Your task to perform on an android device: Show me the alarms in the clock app Image 0: 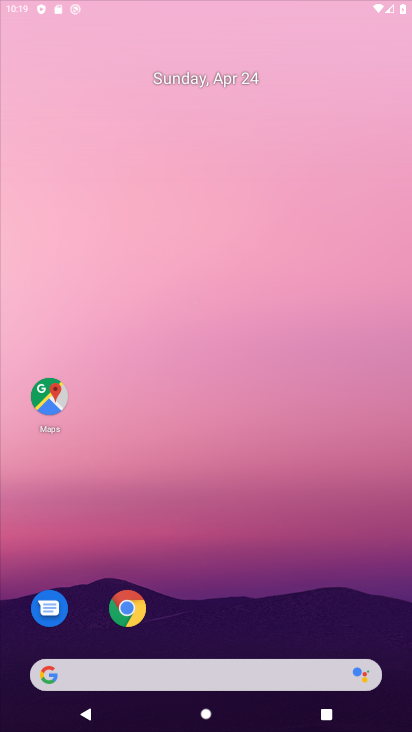
Step 0: click (119, 614)
Your task to perform on an android device: Show me the alarms in the clock app Image 1: 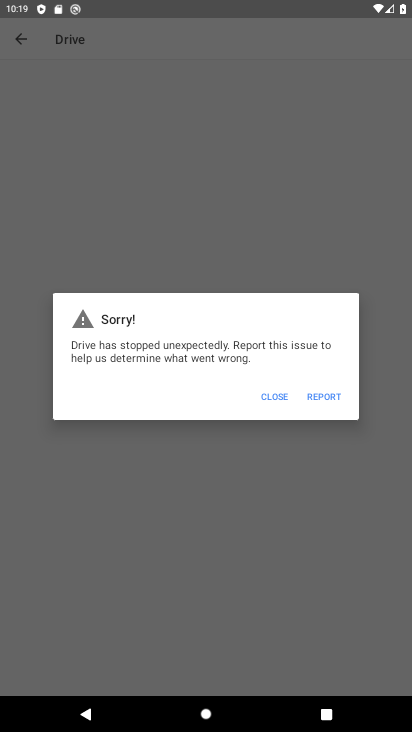
Step 1: press home button
Your task to perform on an android device: Show me the alarms in the clock app Image 2: 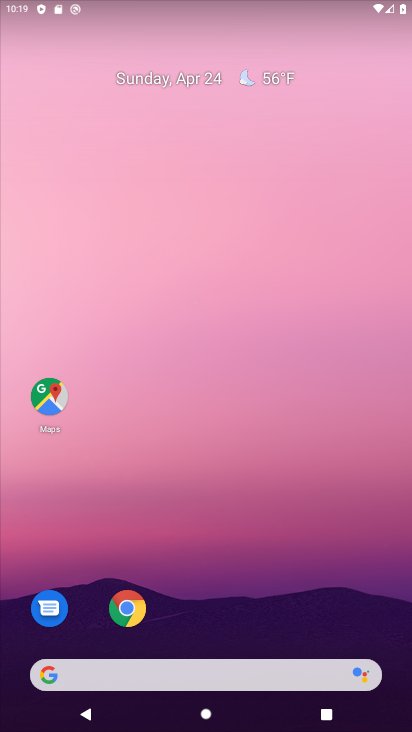
Step 2: drag from (204, 659) to (401, 486)
Your task to perform on an android device: Show me the alarms in the clock app Image 3: 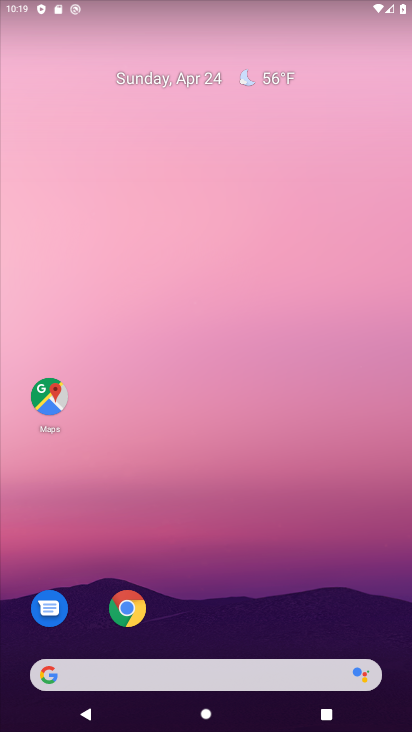
Step 3: click (198, 377)
Your task to perform on an android device: Show me the alarms in the clock app Image 4: 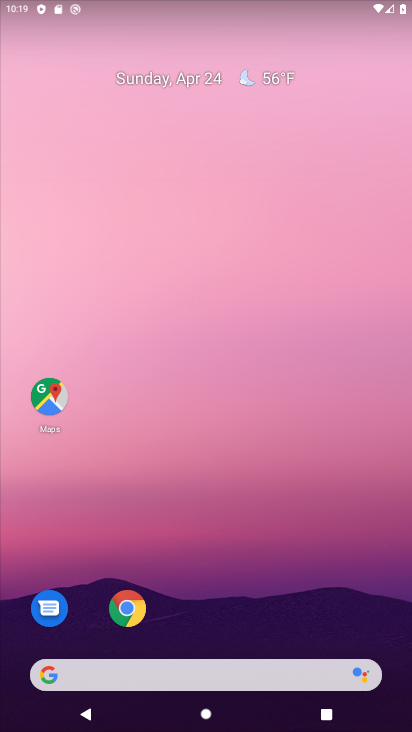
Step 4: drag from (245, 647) to (45, 433)
Your task to perform on an android device: Show me the alarms in the clock app Image 5: 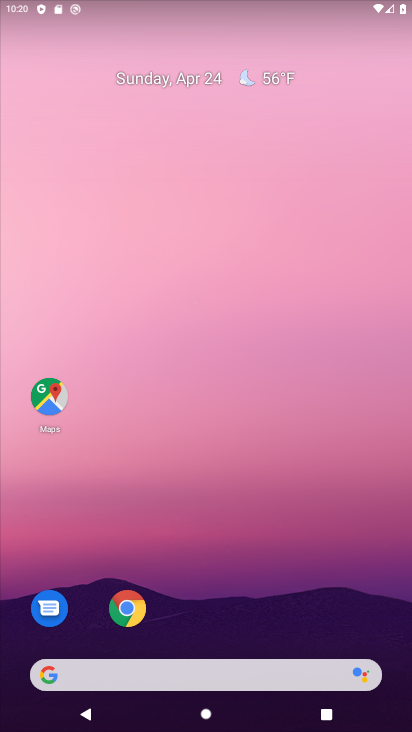
Step 5: drag from (191, 652) to (374, 48)
Your task to perform on an android device: Show me the alarms in the clock app Image 6: 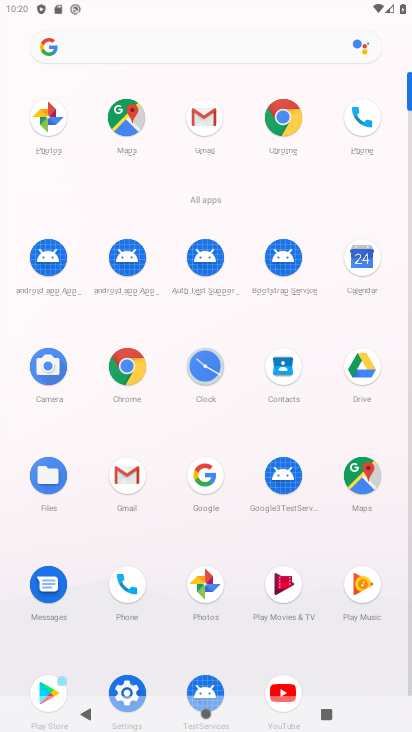
Step 6: click (196, 371)
Your task to perform on an android device: Show me the alarms in the clock app Image 7: 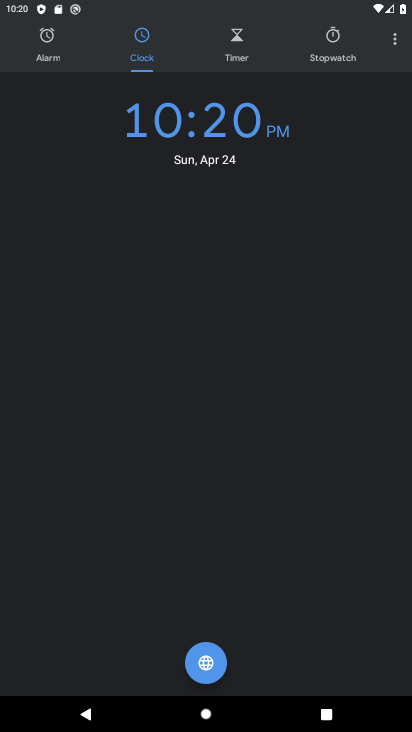
Step 7: click (390, 51)
Your task to perform on an android device: Show me the alarms in the clock app Image 8: 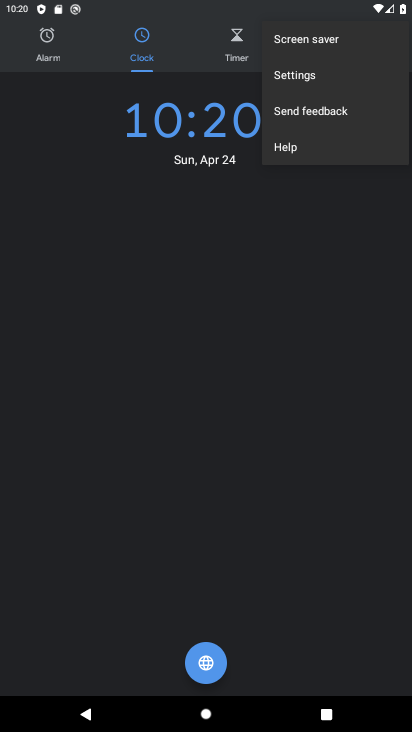
Step 8: click (306, 377)
Your task to perform on an android device: Show me the alarms in the clock app Image 9: 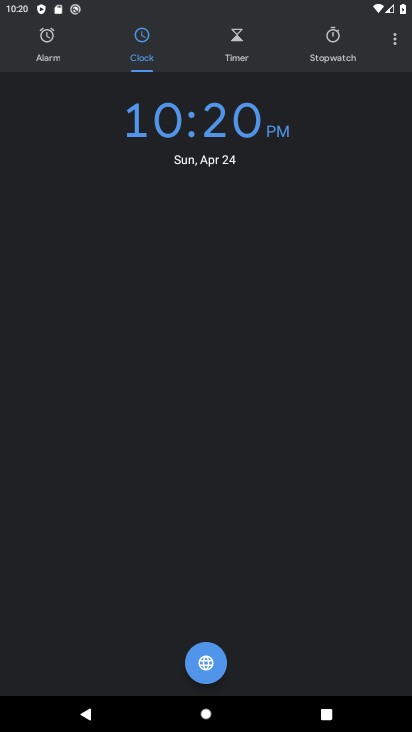
Step 9: click (37, 55)
Your task to perform on an android device: Show me the alarms in the clock app Image 10: 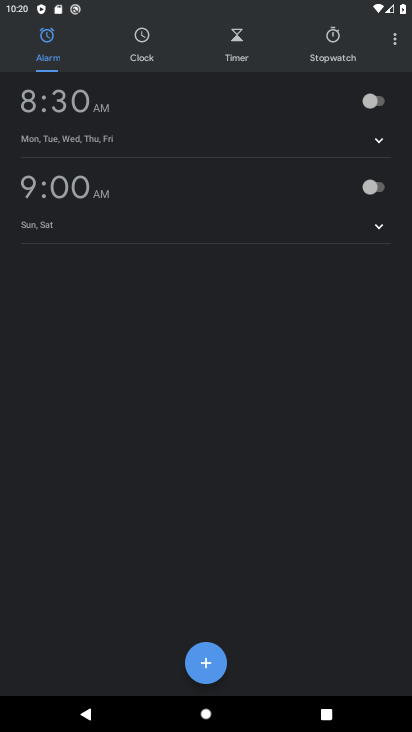
Step 10: click (209, 653)
Your task to perform on an android device: Show me the alarms in the clock app Image 11: 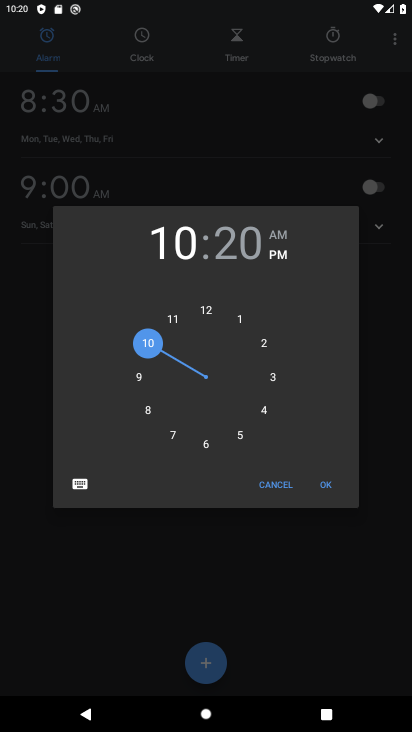
Step 11: click (323, 485)
Your task to perform on an android device: Show me the alarms in the clock app Image 12: 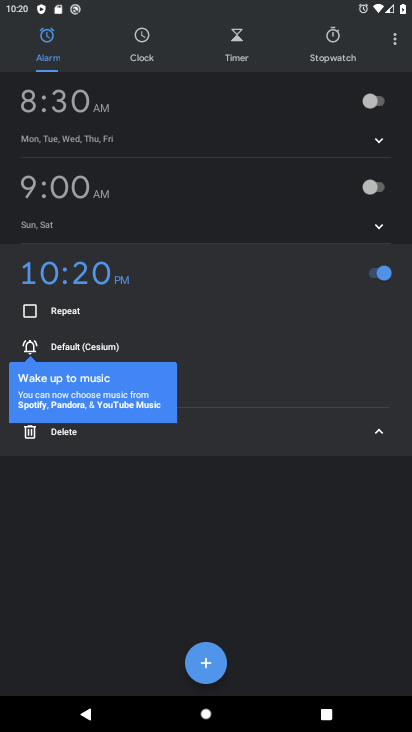
Step 12: task complete